Your task to perform on an android device: change text size in settings app Image 0: 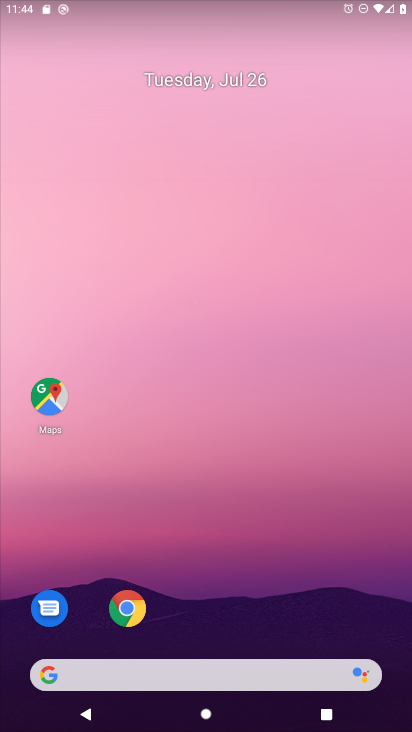
Step 0: drag from (291, 575) to (315, 47)
Your task to perform on an android device: change text size in settings app Image 1: 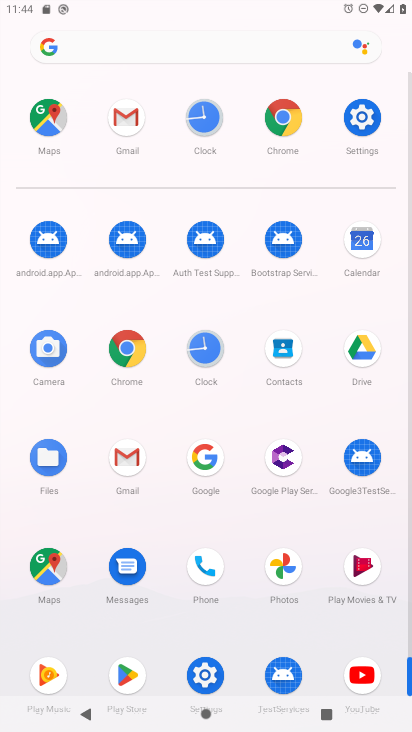
Step 1: click (361, 120)
Your task to perform on an android device: change text size in settings app Image 2: 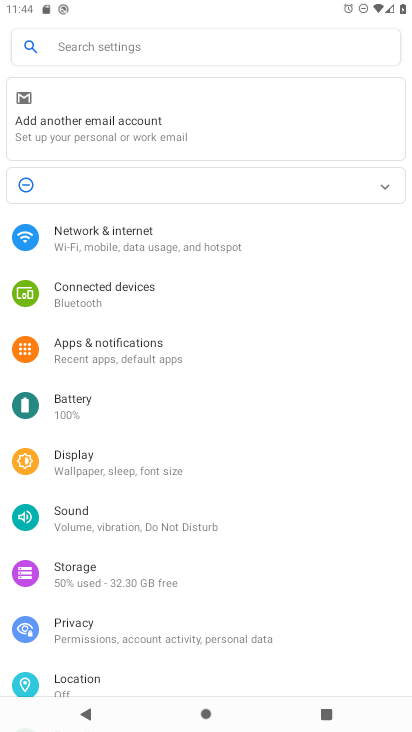
Step 2: drag from (161, 625) to (208, 312)
Your task to perform on an android device: change text size in settings app Image 3: 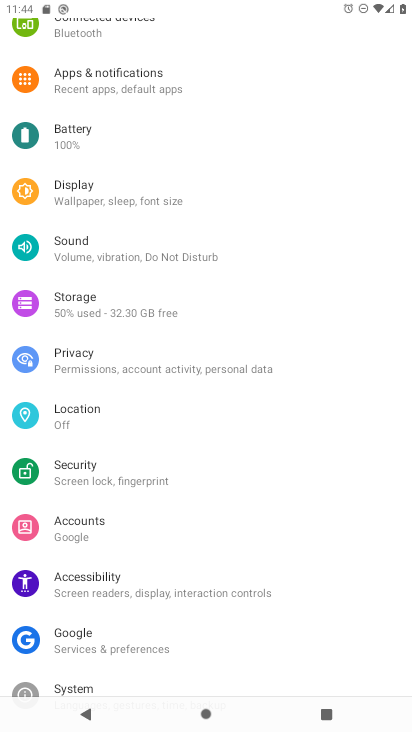
Step 3: click (122, 197)
Your task to perform on an android device: change text size in settings app Image 4: 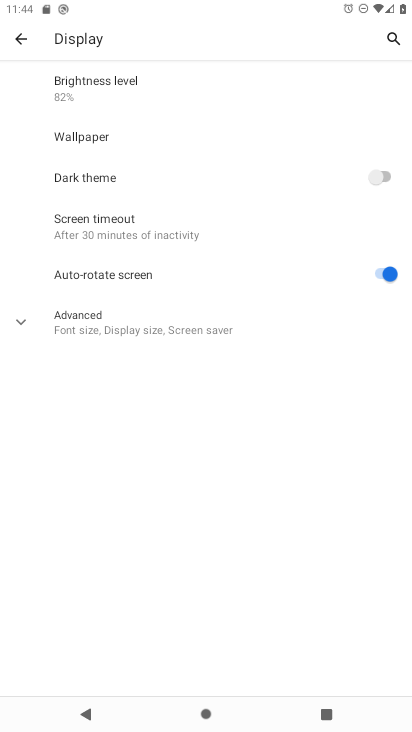
Step 4: click (100, 319)
Your task to perform on an android device: change text size in settings app Image 5: 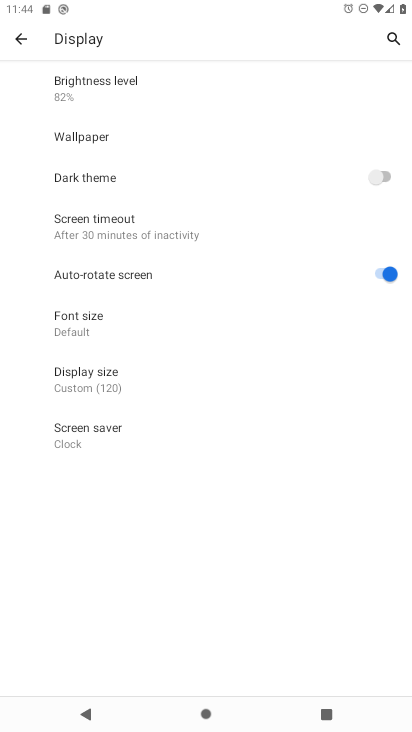
Step 5: click (100, 319)
Your task to perform on an android device: change text size in settings app Image 6: 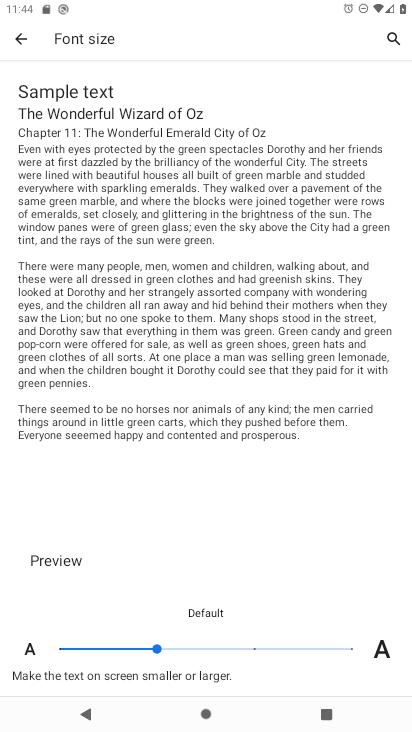
Step 6: click (88, 649)
Your task to perform on an android device: change text size in settings app Image 7: 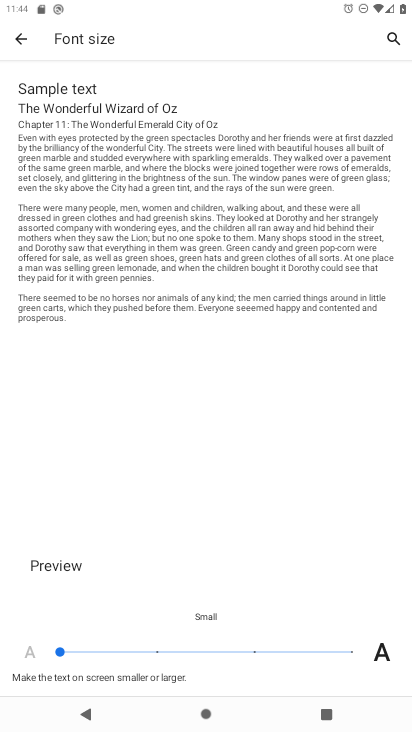
Step 7: task complete